Your task to perform on an android device: install app "Grab" Image 0: 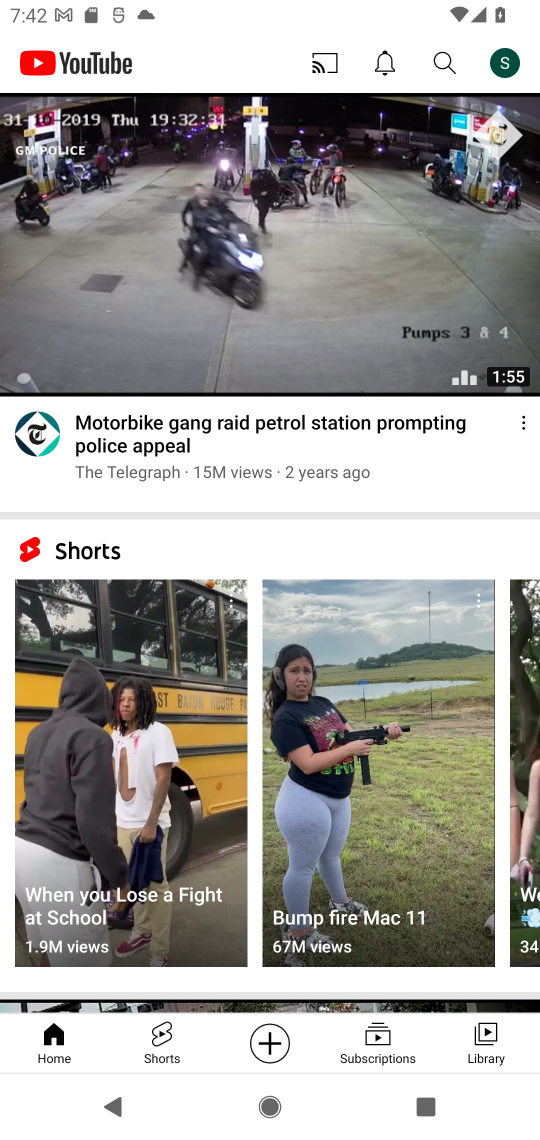
Step 0: press home button
Your task to perform on an android device: install app "Grab" Image 1: 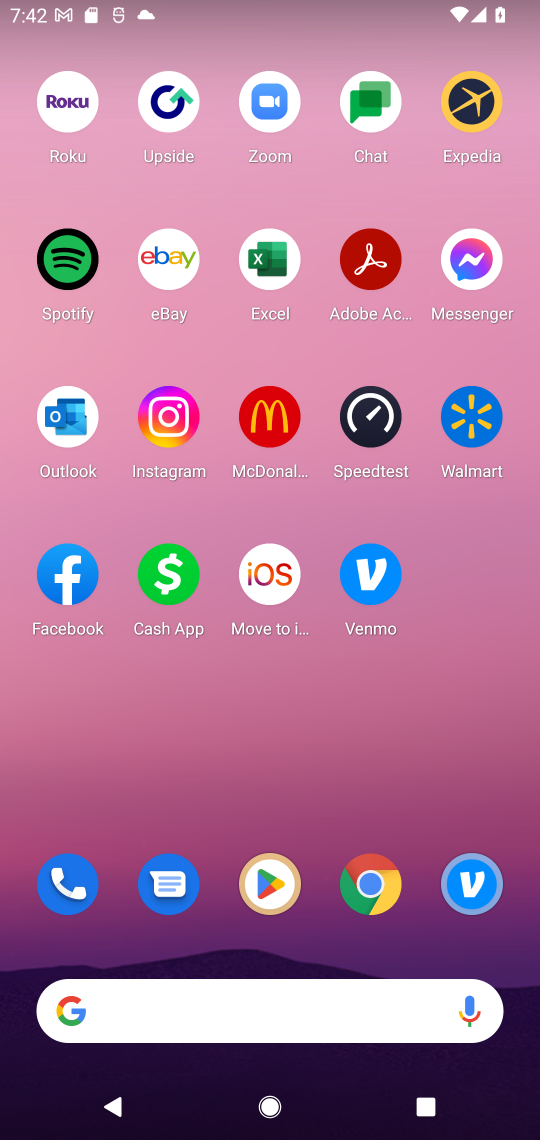
Step 1: drag from (204, 1035) to (395, 0)
Your task to perform on an android device: install app "Grab" Image 2: 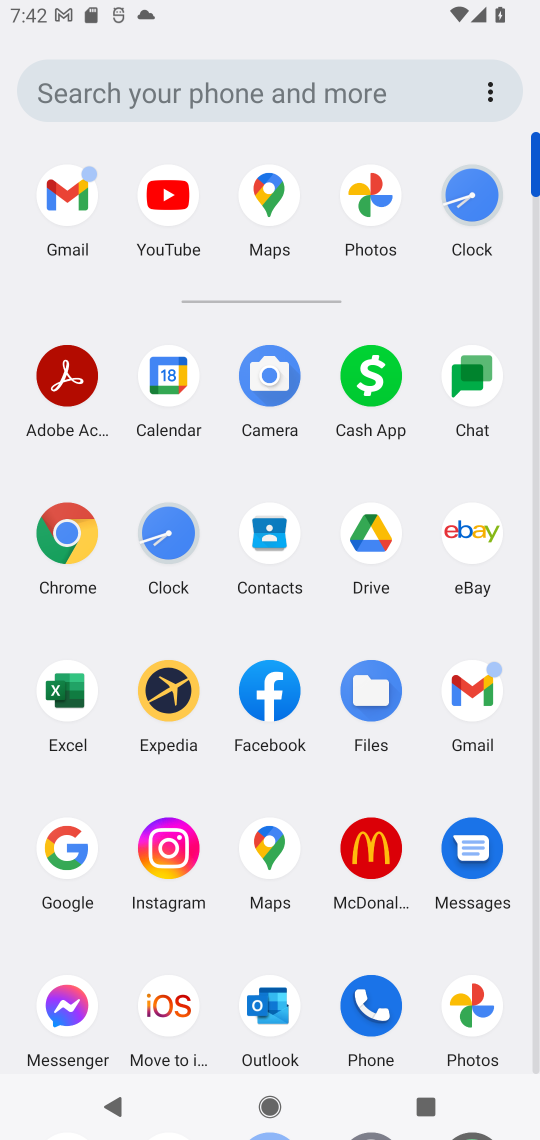
Step 2: drag from (324, 464) to (427, 74)
Your task to perform on an android device: install app "Grab" Image 3: 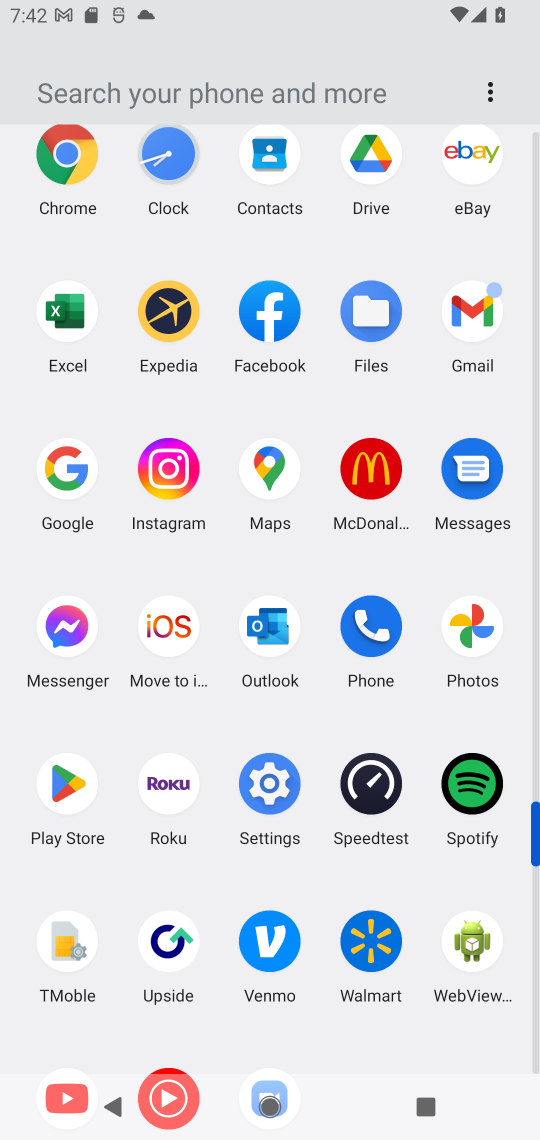
Step 3: click (75, 780)
Your task to perform on an android device: install app "Grab" Image 4: 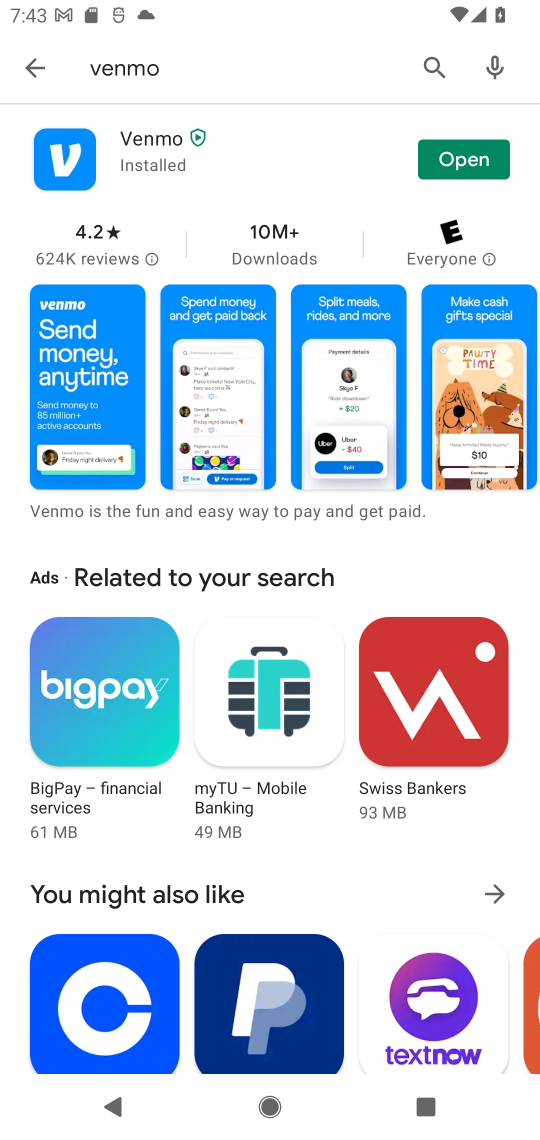
Step 4: press back button
Your task to perform on an android device: install app "Grab" Image 5: 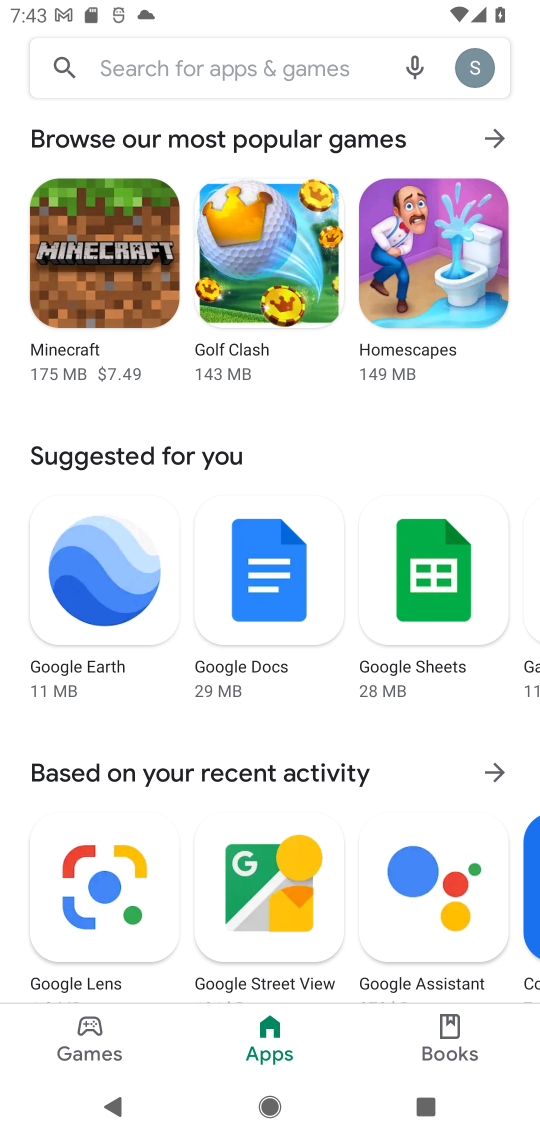
Step 5: click (308, 79)
Your task to perform on an android device: install app "Grab" Image 6: 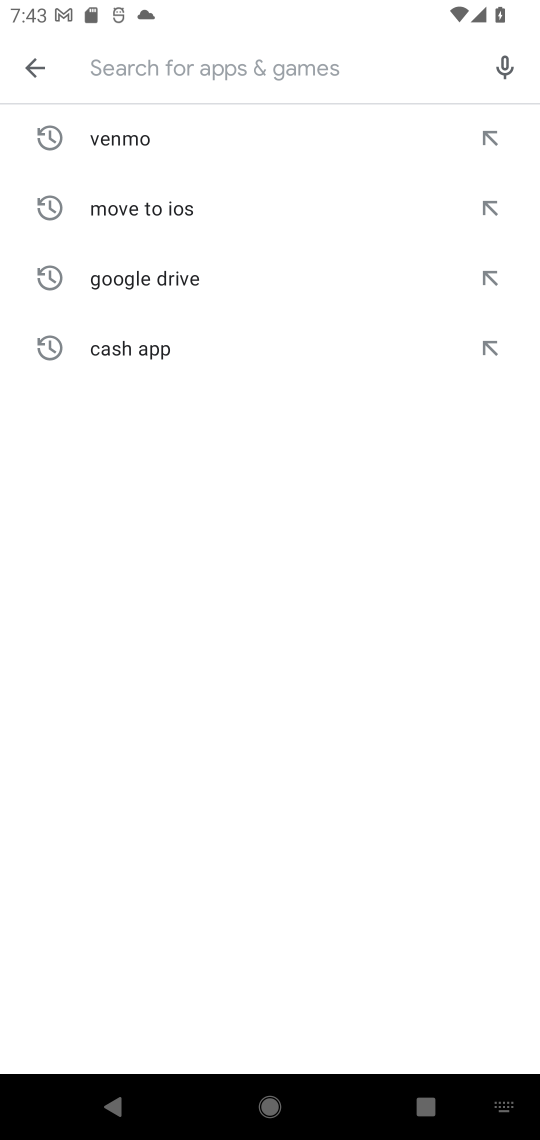
Step 6: type "Grab"
Your task to perform on an android device: install app "Grab" Image 7: 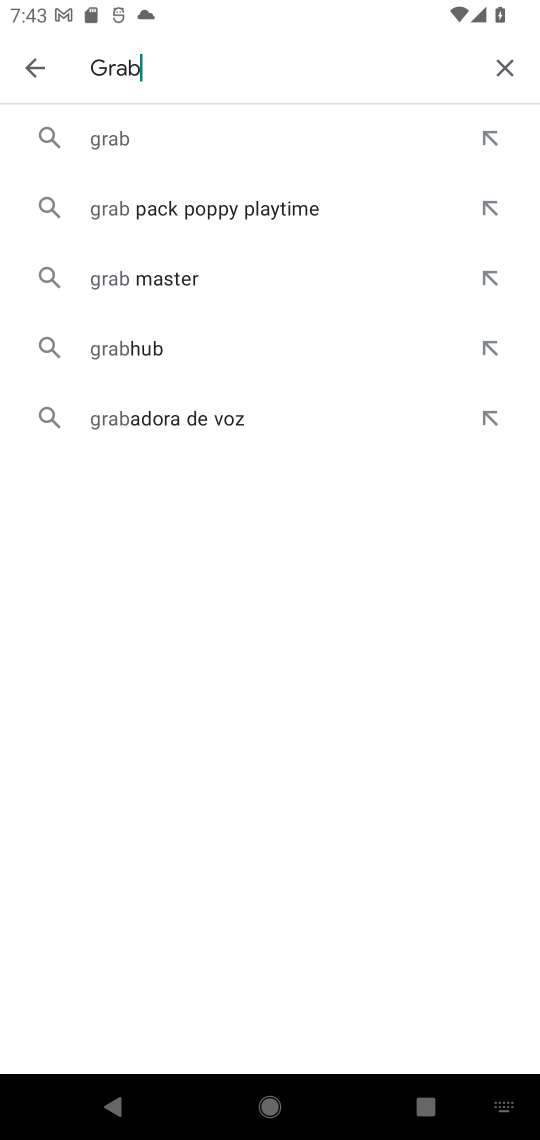
Step 7: click (103, 142)
Your task to perform on an android device: install app "Grab" Image 8: 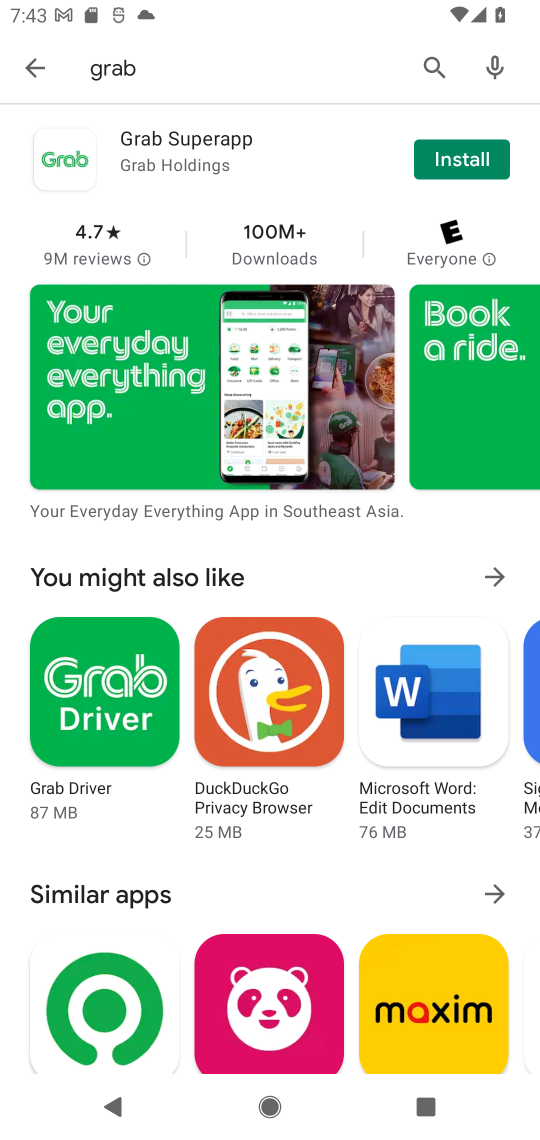
Step 8: click (462, 167)
Your task to perform on an android device: install app "Grab" Image 9: 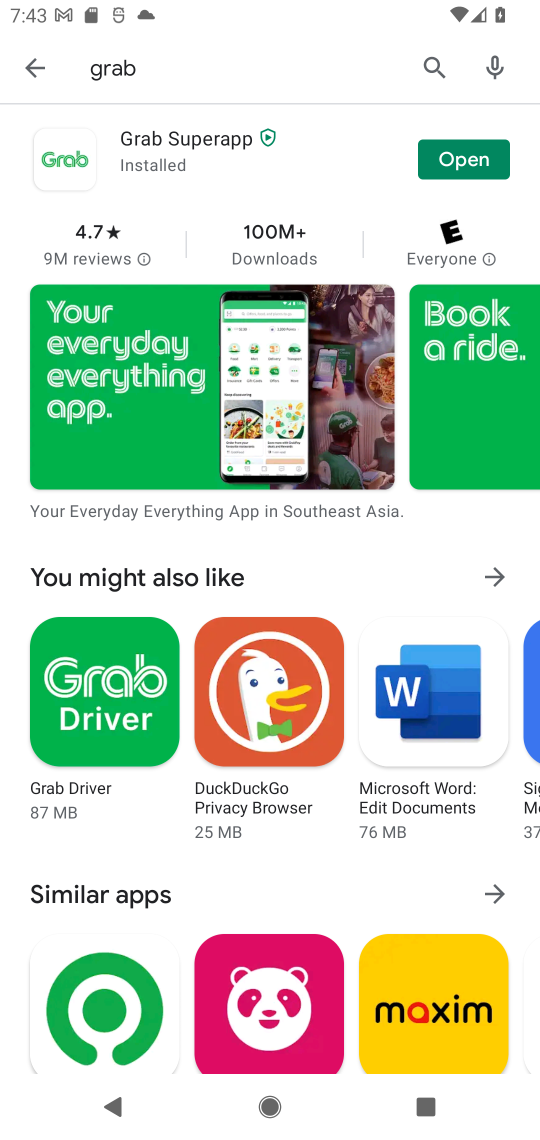
Step 9: task complete